Your task to perform on an android device: Open Reddit.com Image 0: 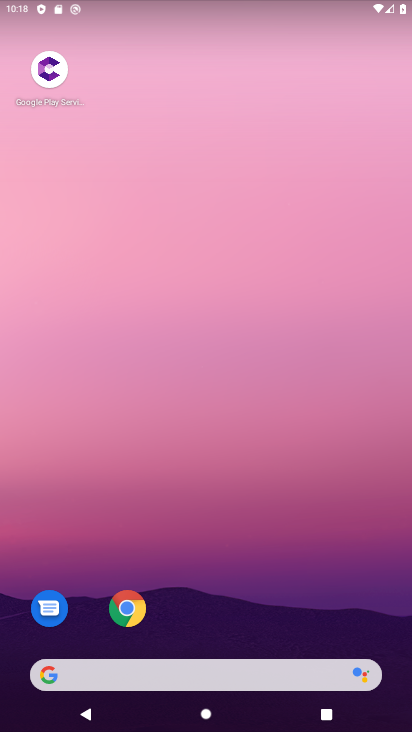
Step 0: click (129, 611)
Your task to perform on an android device: Open Reddit.com Image 1: 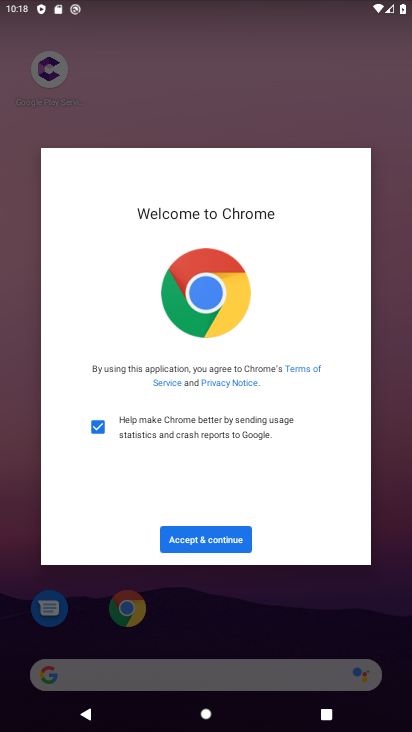
Step 1: click (199, 534)
Your task to perform on an android device: Open Reddit.com Image 2: 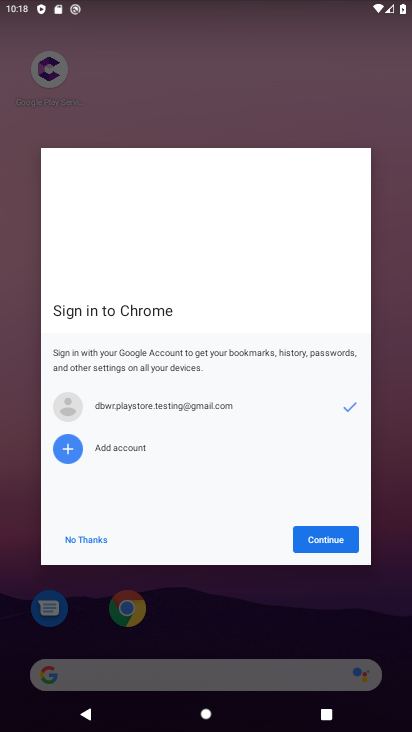
Step 2: click (313, 537)
Your task to perform on an android device: Open Reddit.com Image 3: 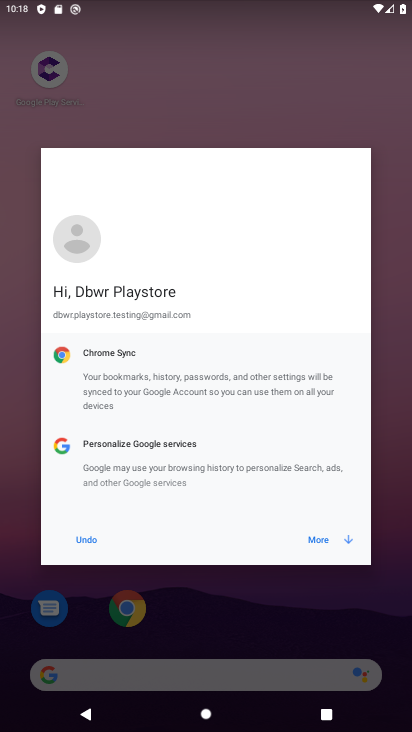
Step 3: click (327, 542)
Your task to perform on an android device: Open Reddit.com Image 4: 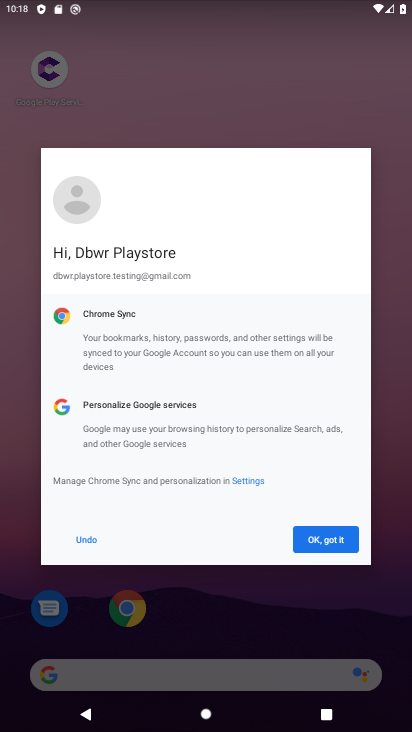
Step 4: click (327, 542)
Your task to perform on an android device: Open Reddit.com Image 5: 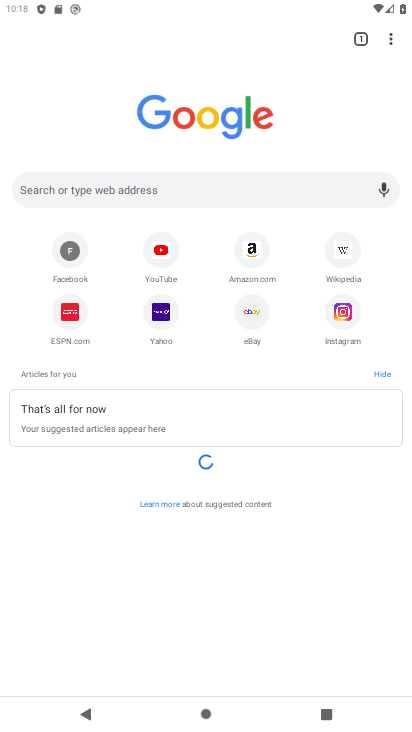
Step 5: click (208, 189)
Your task to perform on an android device: Open Reddit.com Image 6: 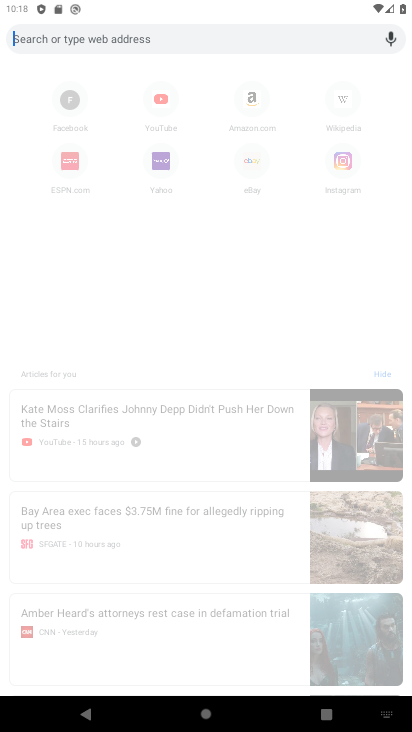
Step 6: type "Reddit.com"
Your task to perform on an android device: Open Reddit.com Image 7: 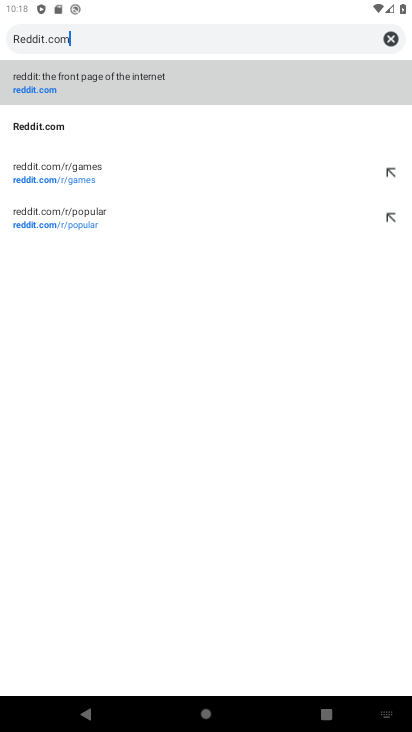
Step 7: click (61, 128)
Your task to perform on an android device: Open Reddit.com Image 8: 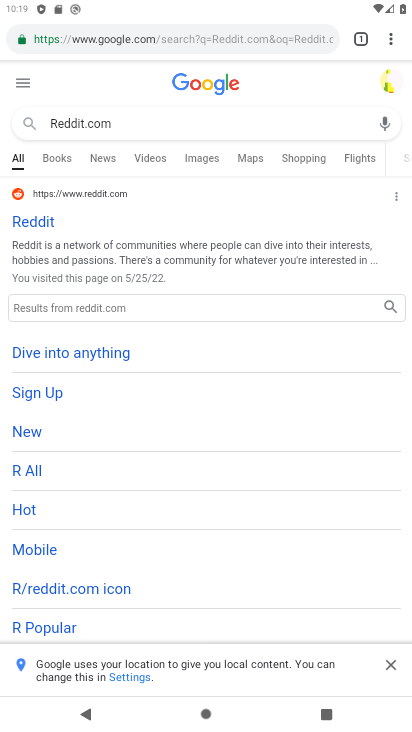
Step 8: click (46, 224)
Your task to perform on an android device: Open Reddit.com Image 9: 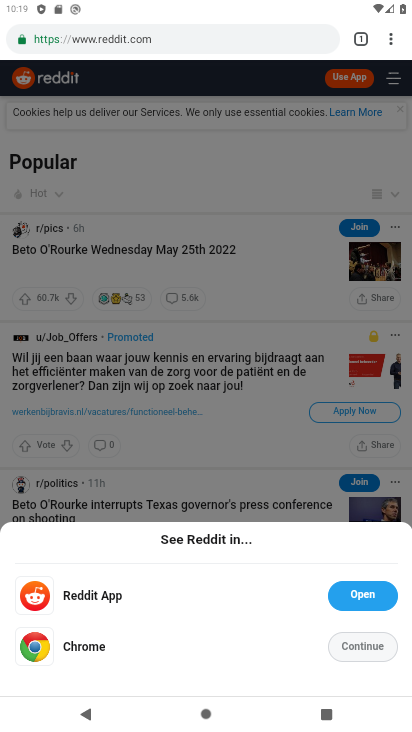
Step 9: click (365, 639)
Your task to perform on an android device: Open Reddit.com Image 10: 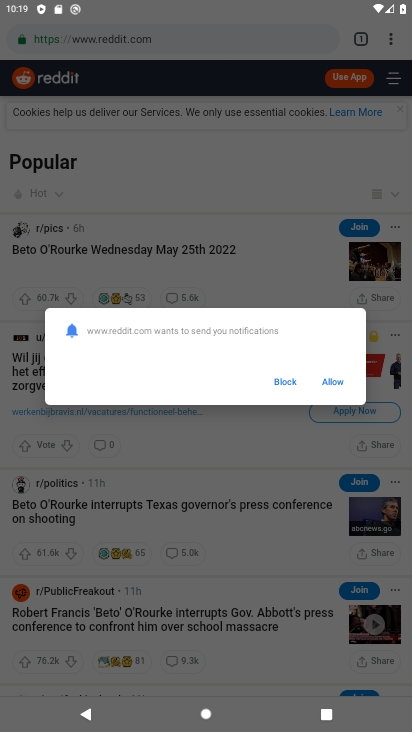
Step 10: click (333, 384)
Your task to perform on an android device: Open Reddit.com Image 11: 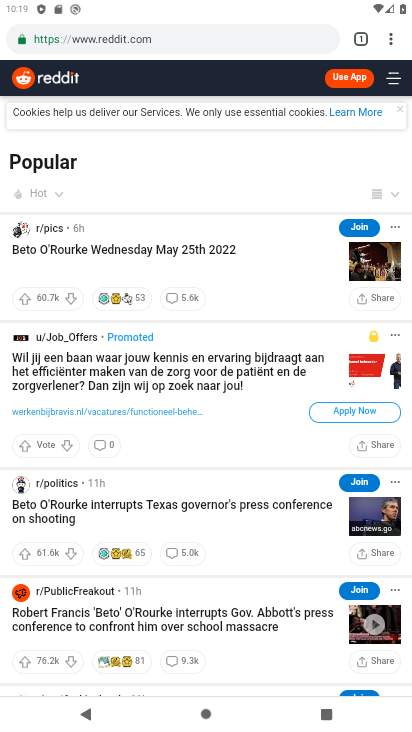
Step 11: task complete